Your task to perform on an android device: Is it going to rain tomorrow? Image 0: 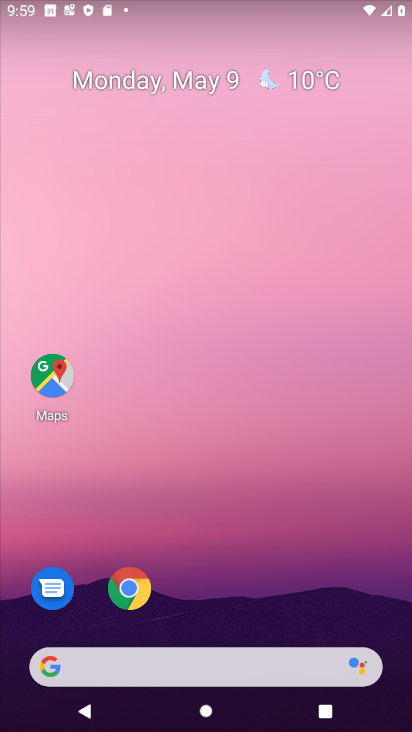
Step 0: click (309, 85)
Your task to perform on an android device: Is it going to rain tomorrow? Image 1: 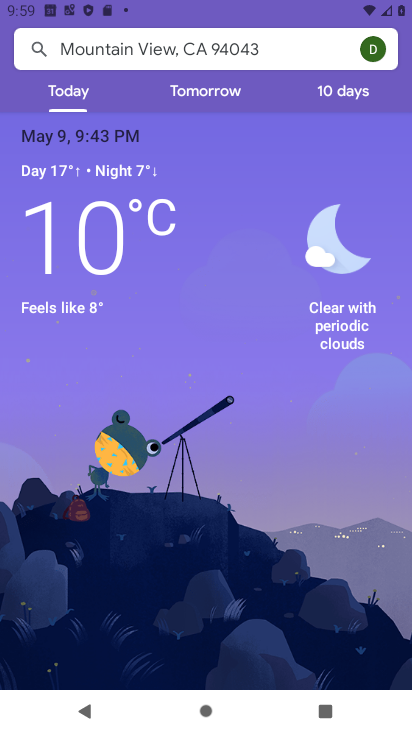
Step 1: click (197, 87)
Your task to perform on an android device: Is it going to rain tomorrow? Image 2: 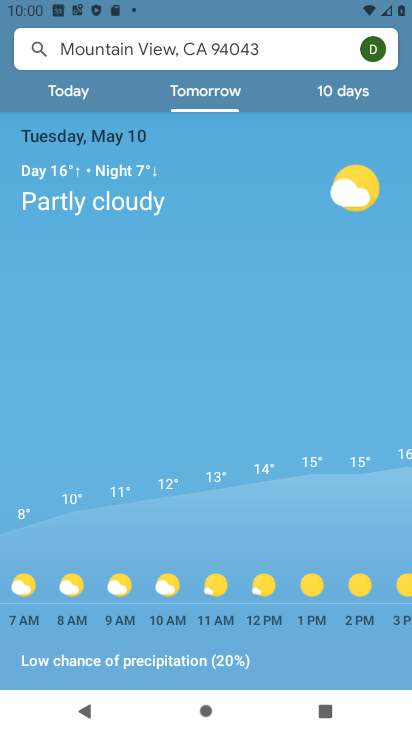
Step 2: task complete